Your task to perform on an android device: check battery use Image 0: 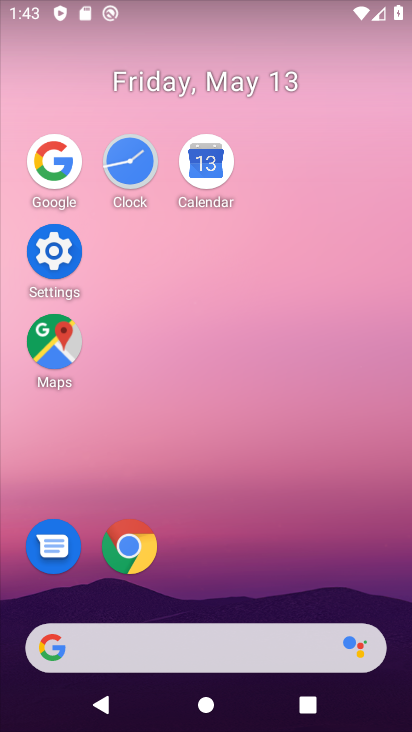
Step 0: click (43, 243)
Your task to perform on an android device: check battery use Image 1: 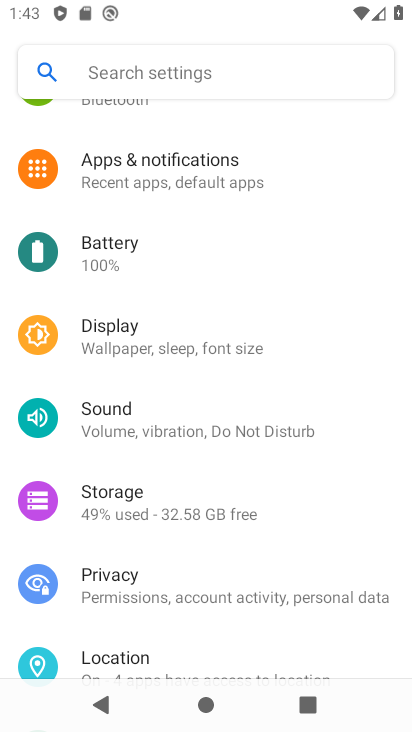
Step 1: click (171, 259)
Your task to perform on an android device: check battery use Image 2: 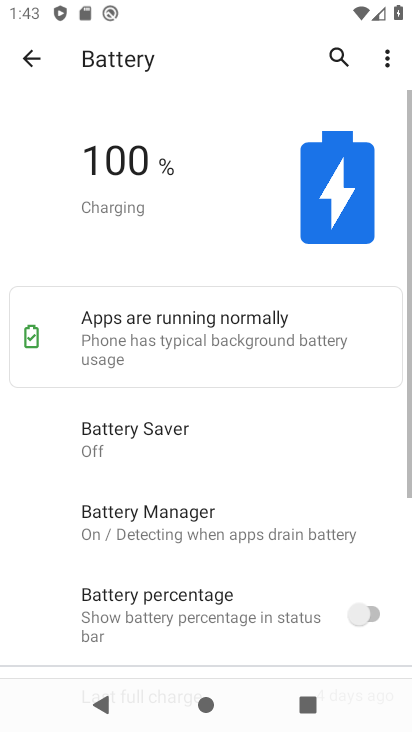
Step 2: click (383, 57)
Your task to perform on an android device: check battery use Image 3: 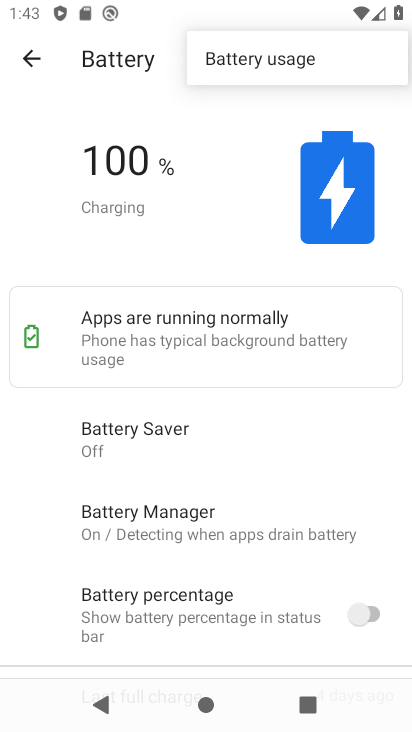
Step 3: click (268, 59)
Your task to perform on an android device: check battery use Image 4: 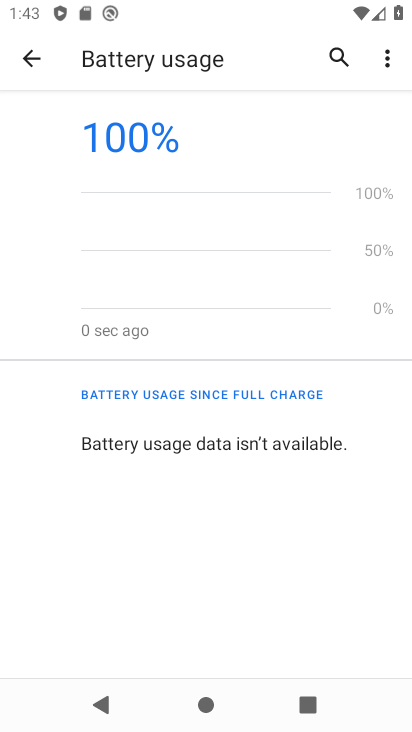
Step 4: task complete